Your task to perform on an android device: Open wifi settings Image 0: 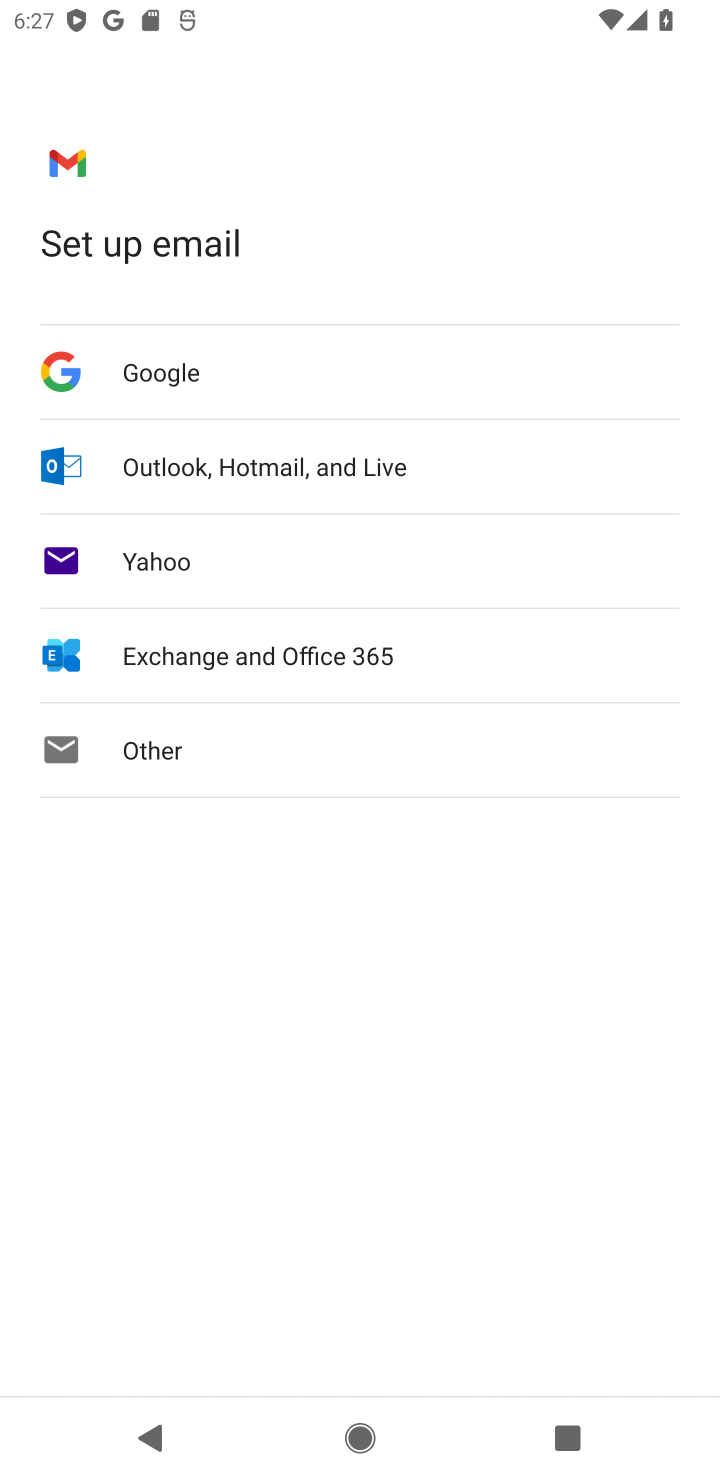
Step 0: press home button
Your task to perform on an android device: Open wifi settings Image 1: 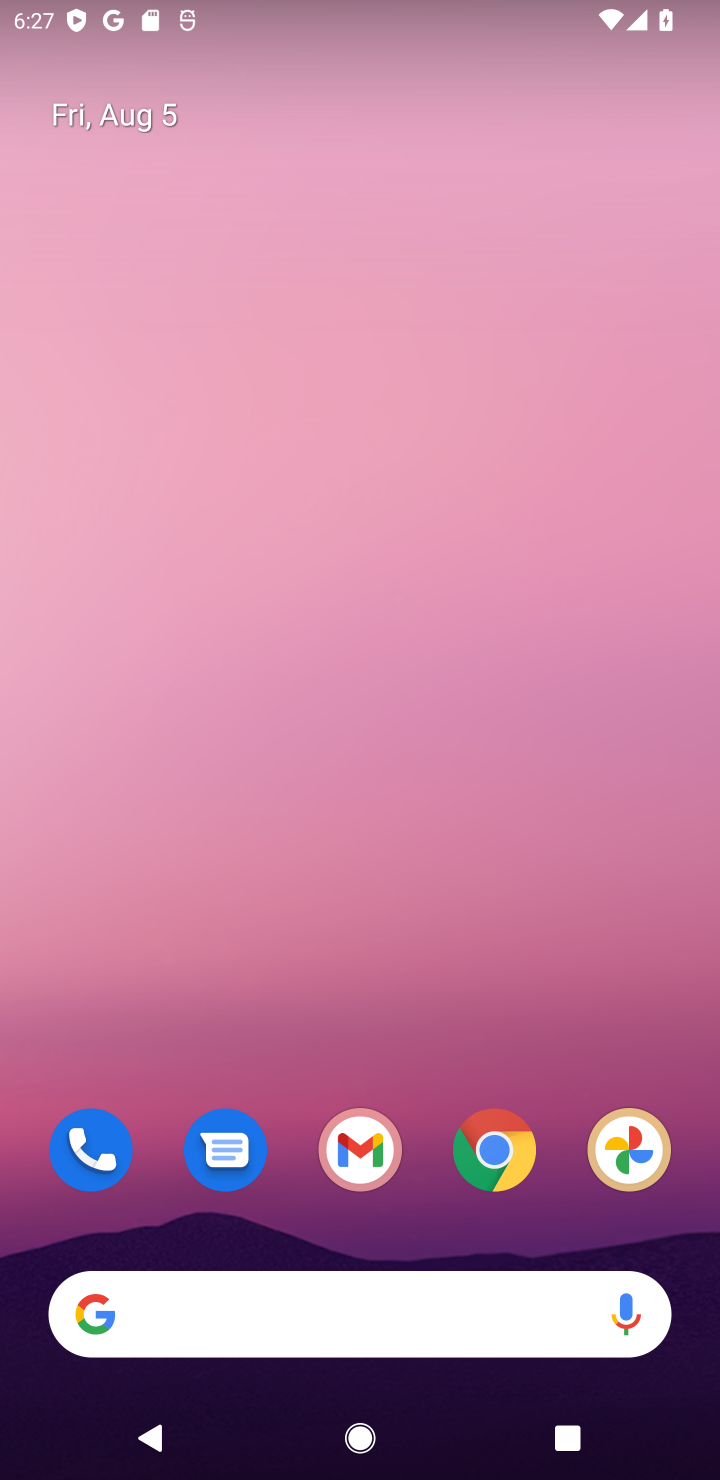
Step 1: drag from (301, 844) to (329, 395)
Your task to perform on an android device: Open wifi settings Image 2: 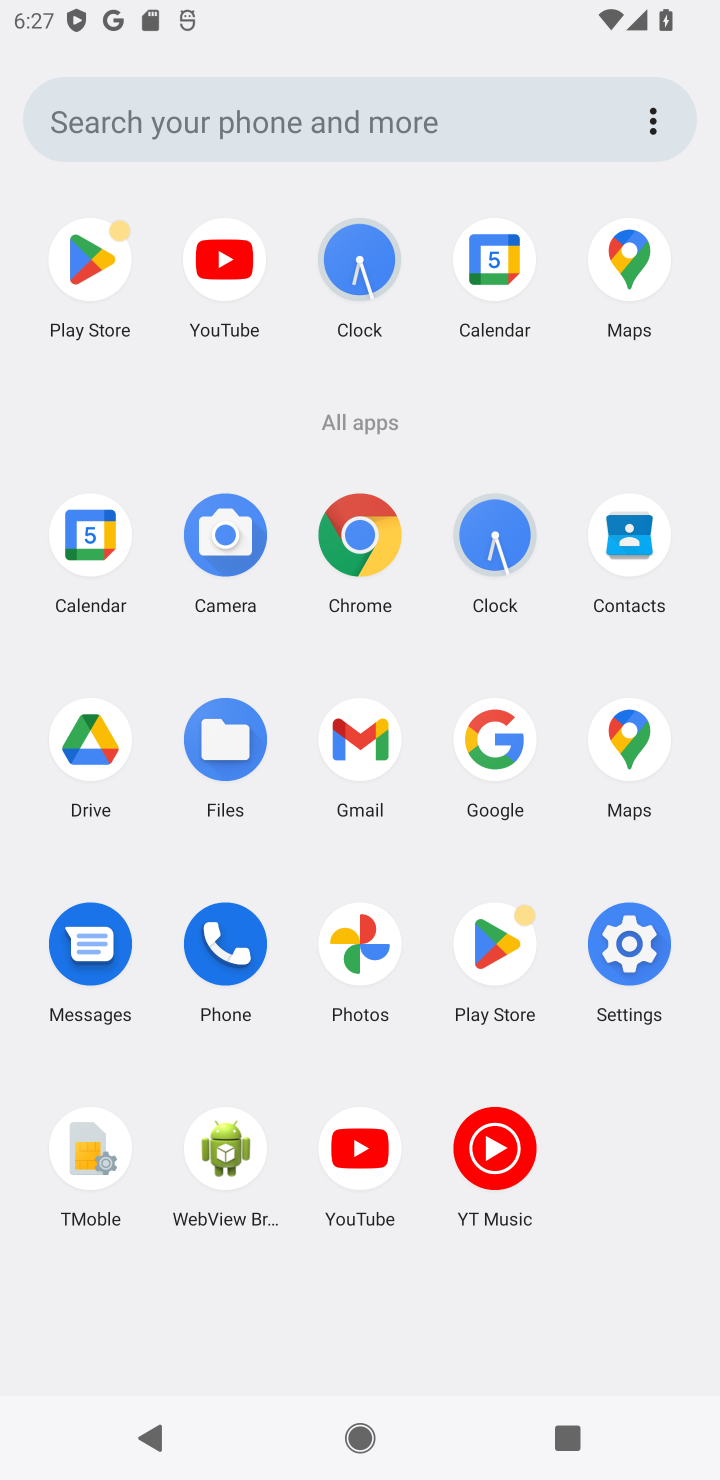
Step 2: click (628, 948)
Your task to perform on an android device: Open wifi settings Image 3: 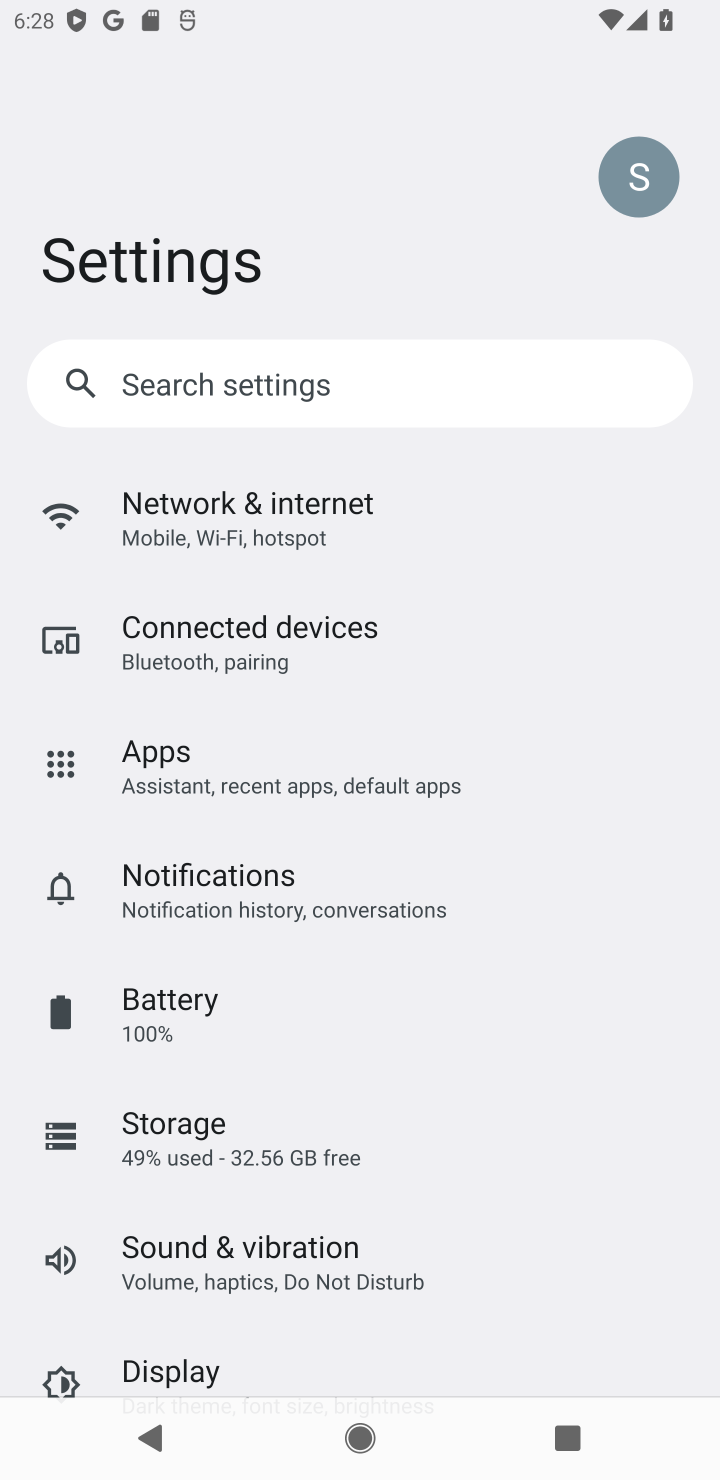
Step 3: click (280, 538)
Your task to perform on an android device: Open wifi settings Image 4: 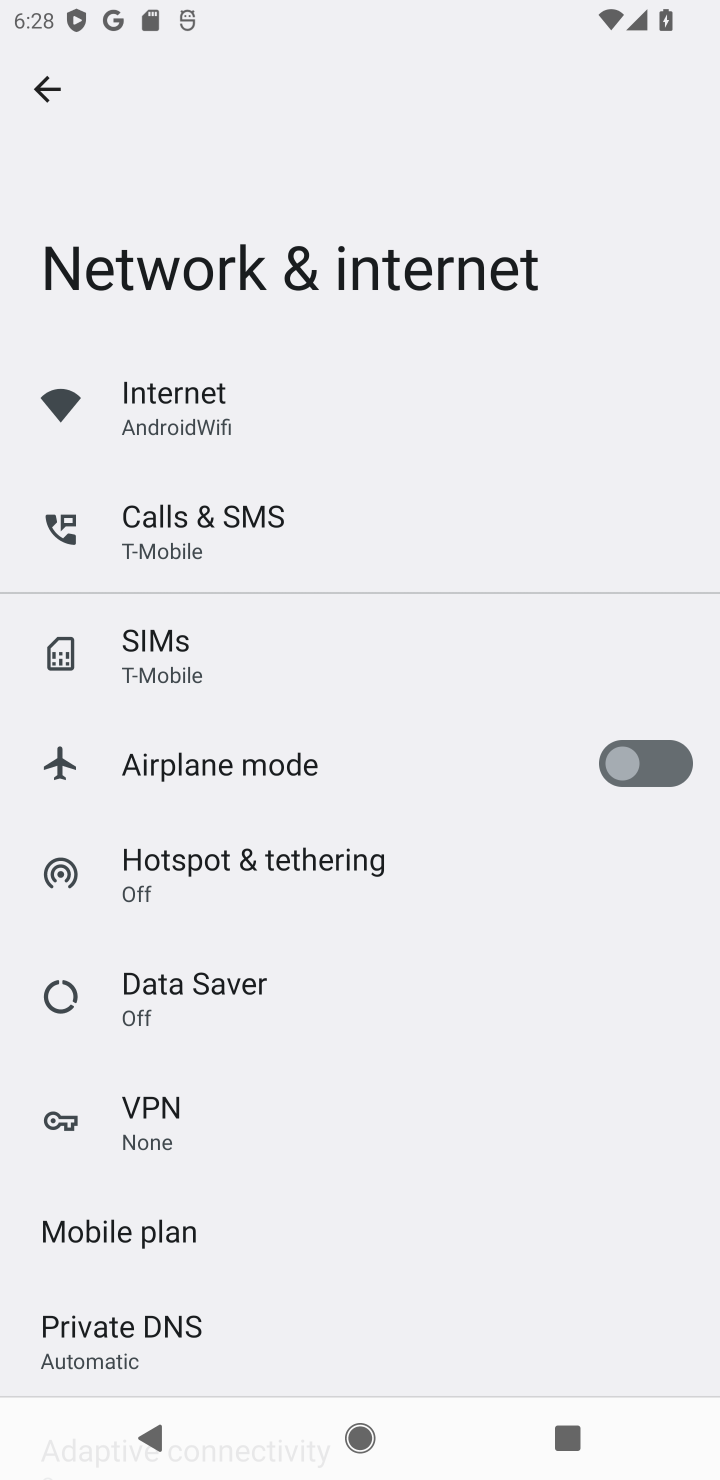
Step 4: click (194, 415)
Your task to perform on an android device: Open wifi settings Image 5: 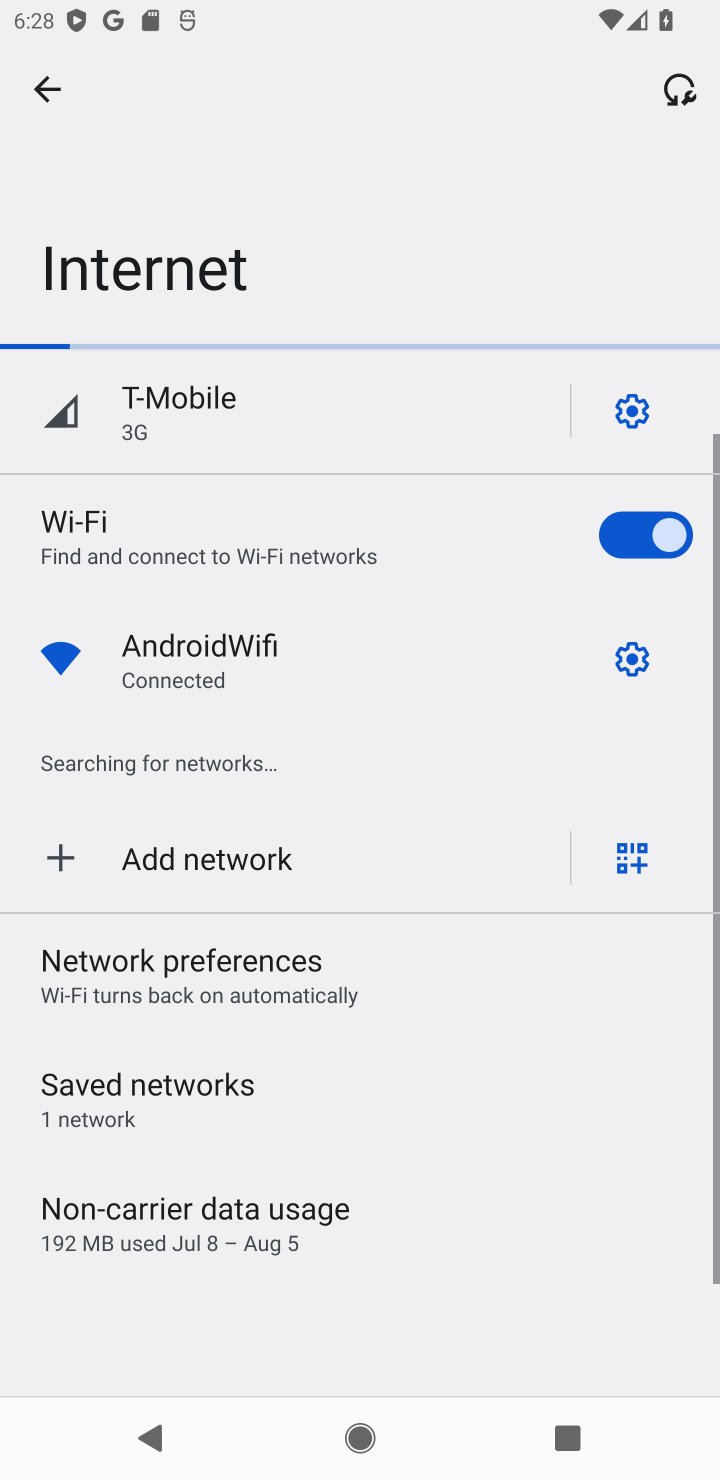
Step 5: task complete